Your task to perform on an android device: Check the news Image 0: 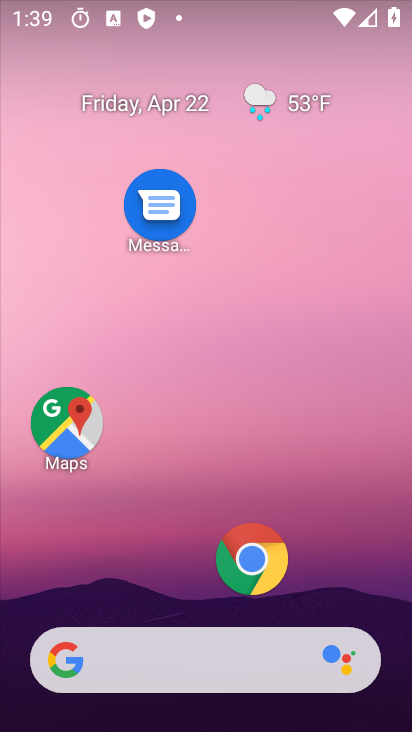
Step 0: drag from (216, 622) to (244, 235)
Your task to perform on an android device: Check the news Image 1: 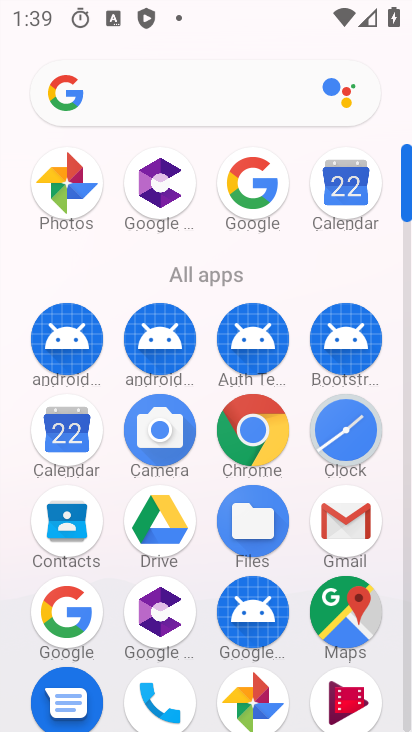
Step 1: click (65, 612)
Your task to perform on an android device: Check the news Image 2: 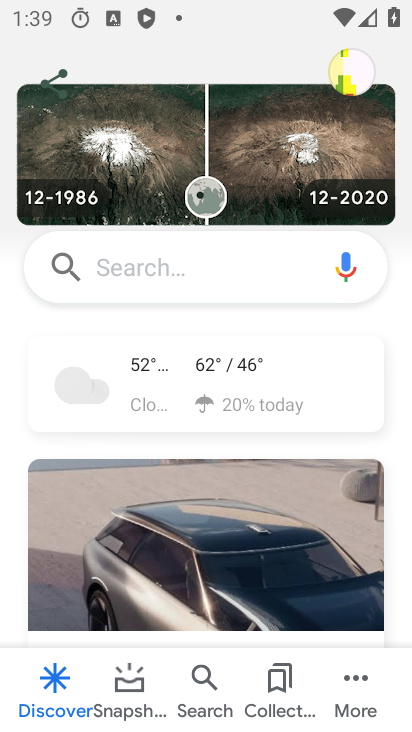
Step 2: click (119, 265)
Your task to perform on an android device: Check the news Image 3: 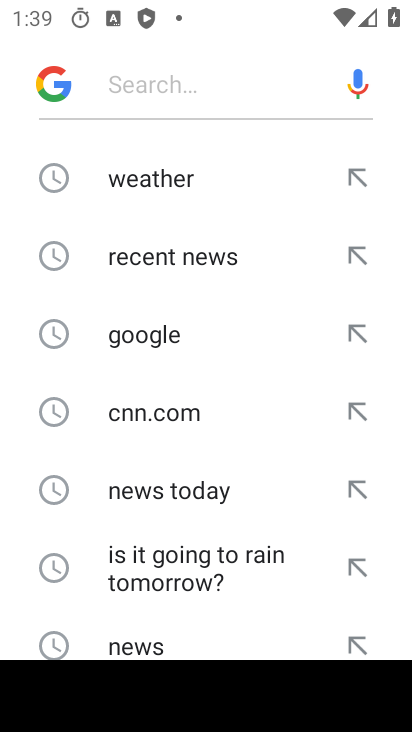
Step 3: click (151, 646)
Your task to perform on an android device: Check the news Image 4: 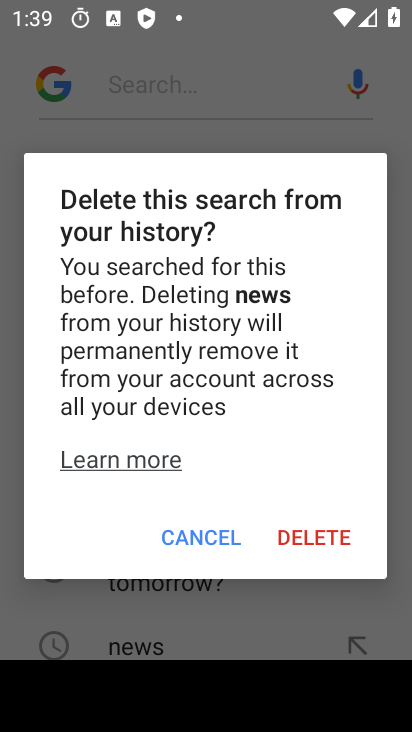
Step 4: click (189, 543)
Your task to perform on an android device: Check the news Image 5: 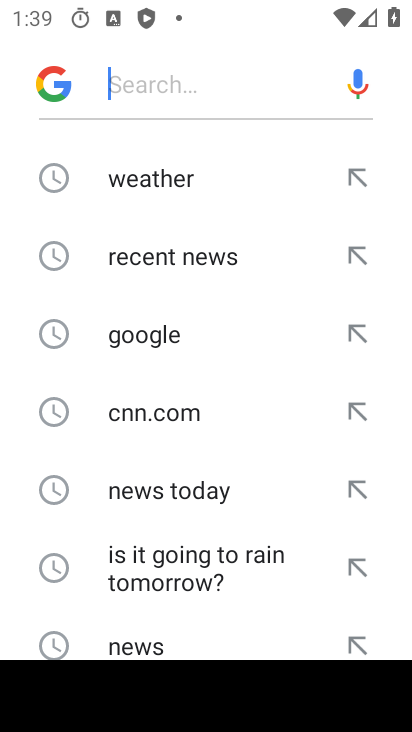
Step 5: click (144, 650)
Your task to perform on an android device: Check the news Image 6: 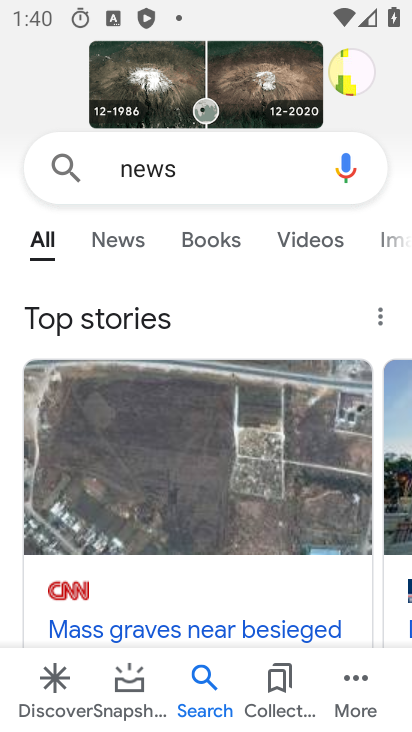
Step 6: task complete